Your task to perform on an android device: open app "Firefox Browser" Image 0: 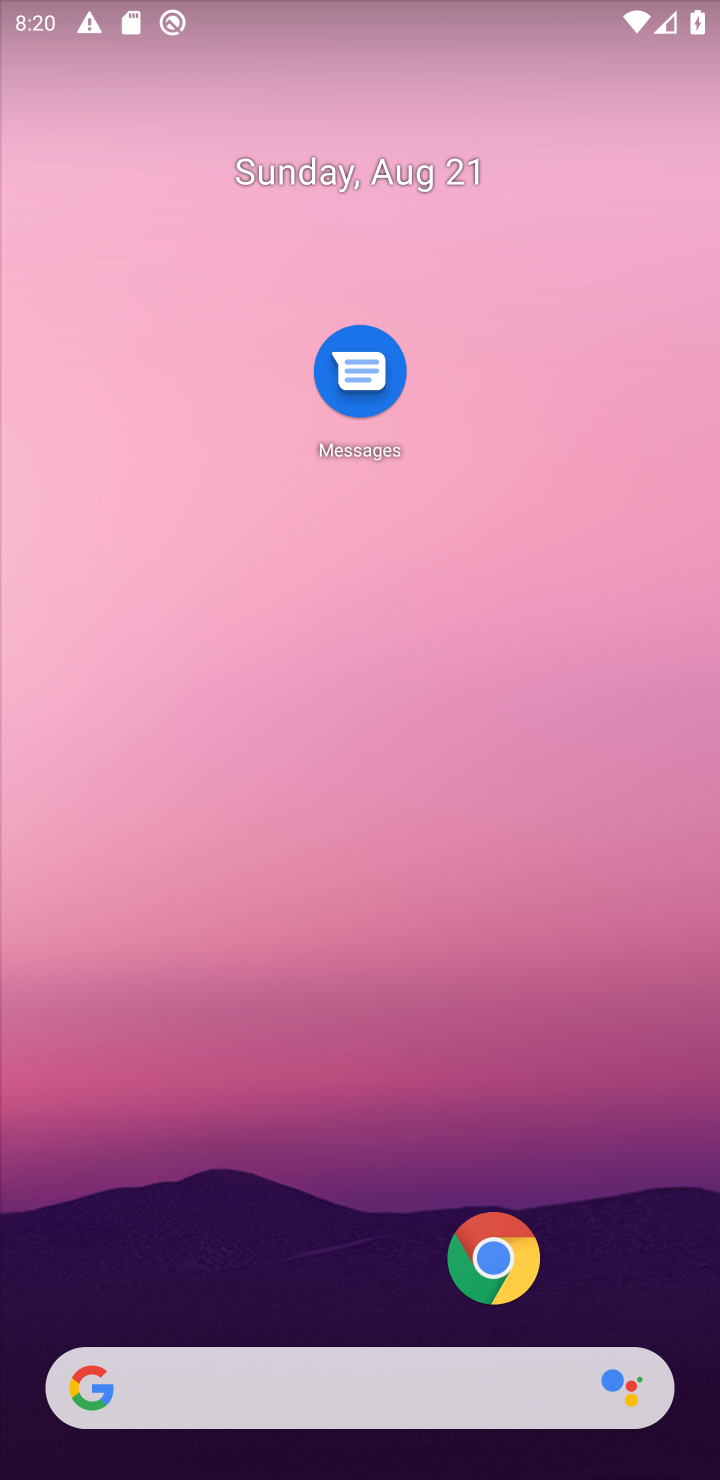
Step 0: drag from (362, 594) to (298, 0)
Your task to perform on an android device: open app "Firefox Browser" Image 1: 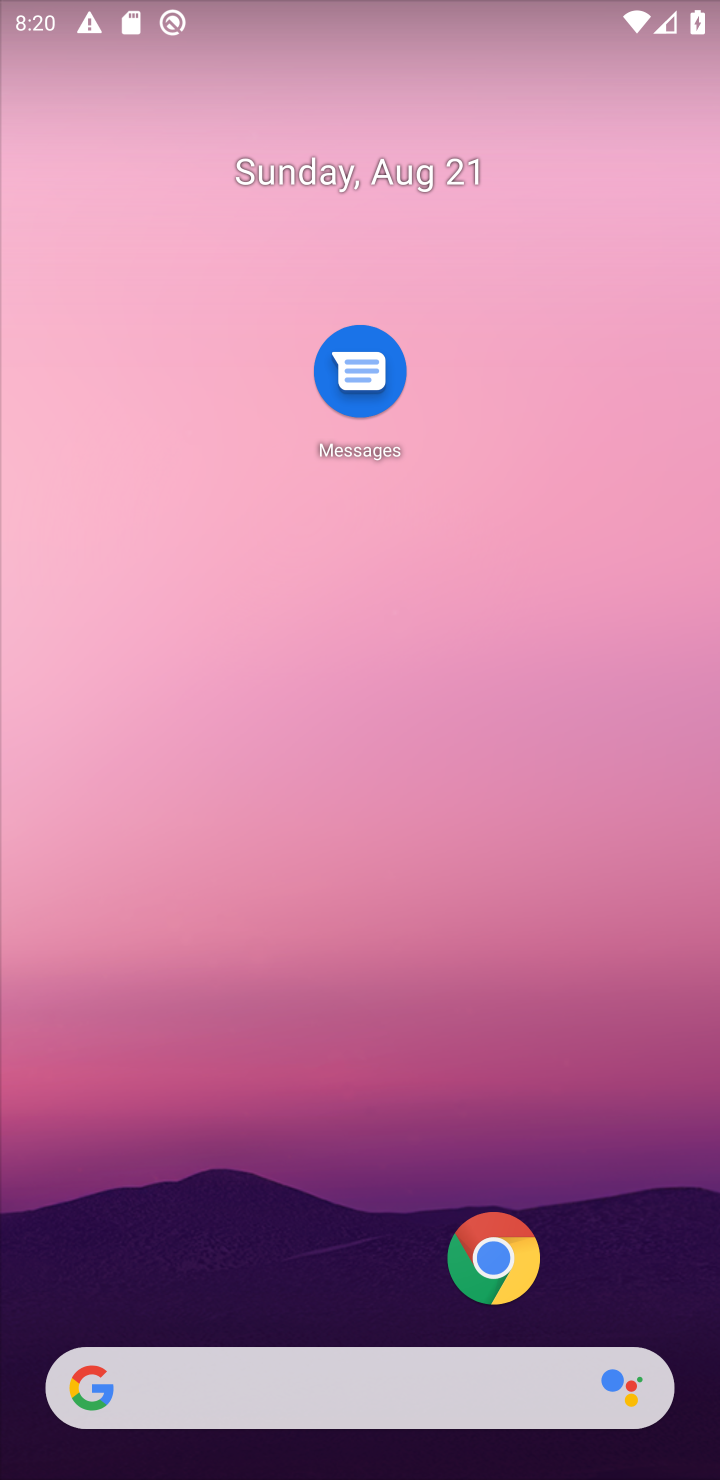
Step 1: drag from (546, 1238) to (399, 53)
Your task to perform on an android device: open app "Firefox Browser" Image 2: 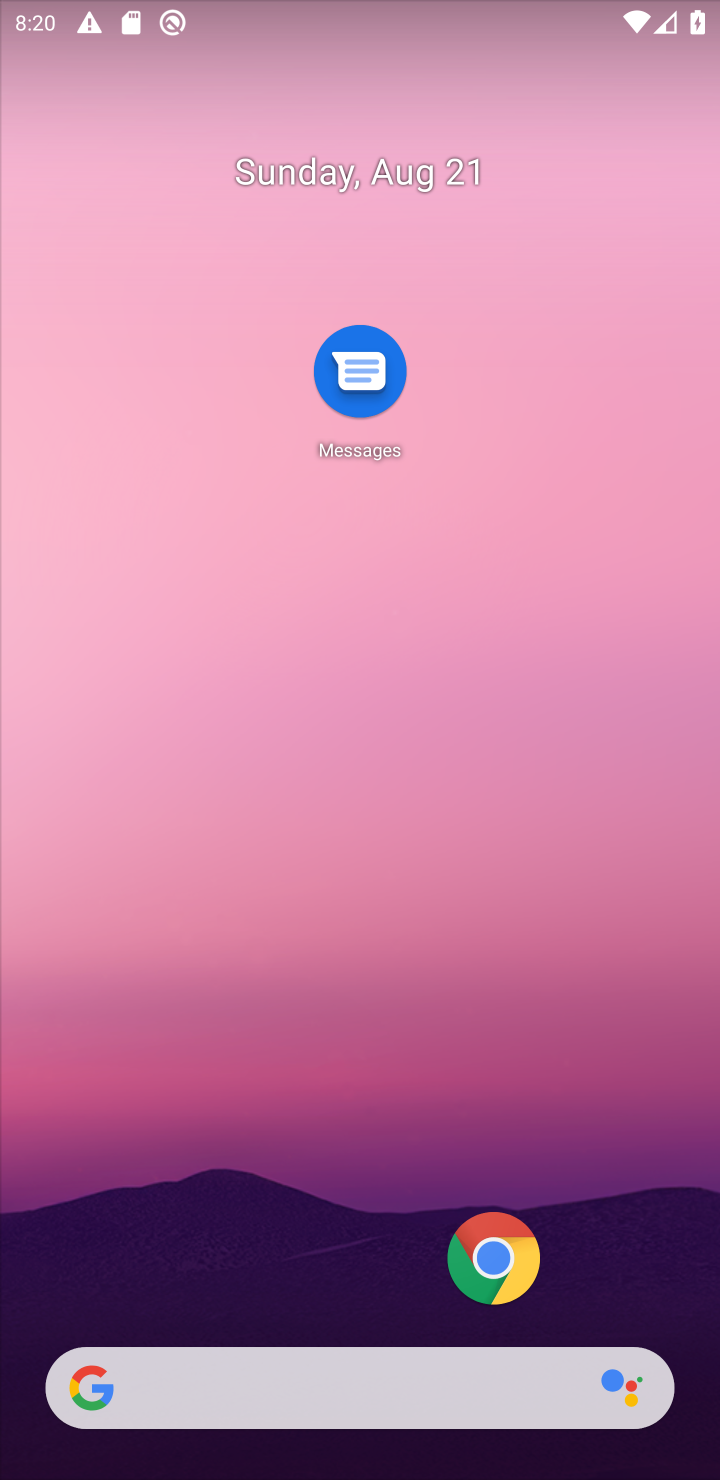
Step 2: drag from (360, 1105) to (303, 2)
Your task to perform on an android device: open app "Firefox Browser" Image 3: 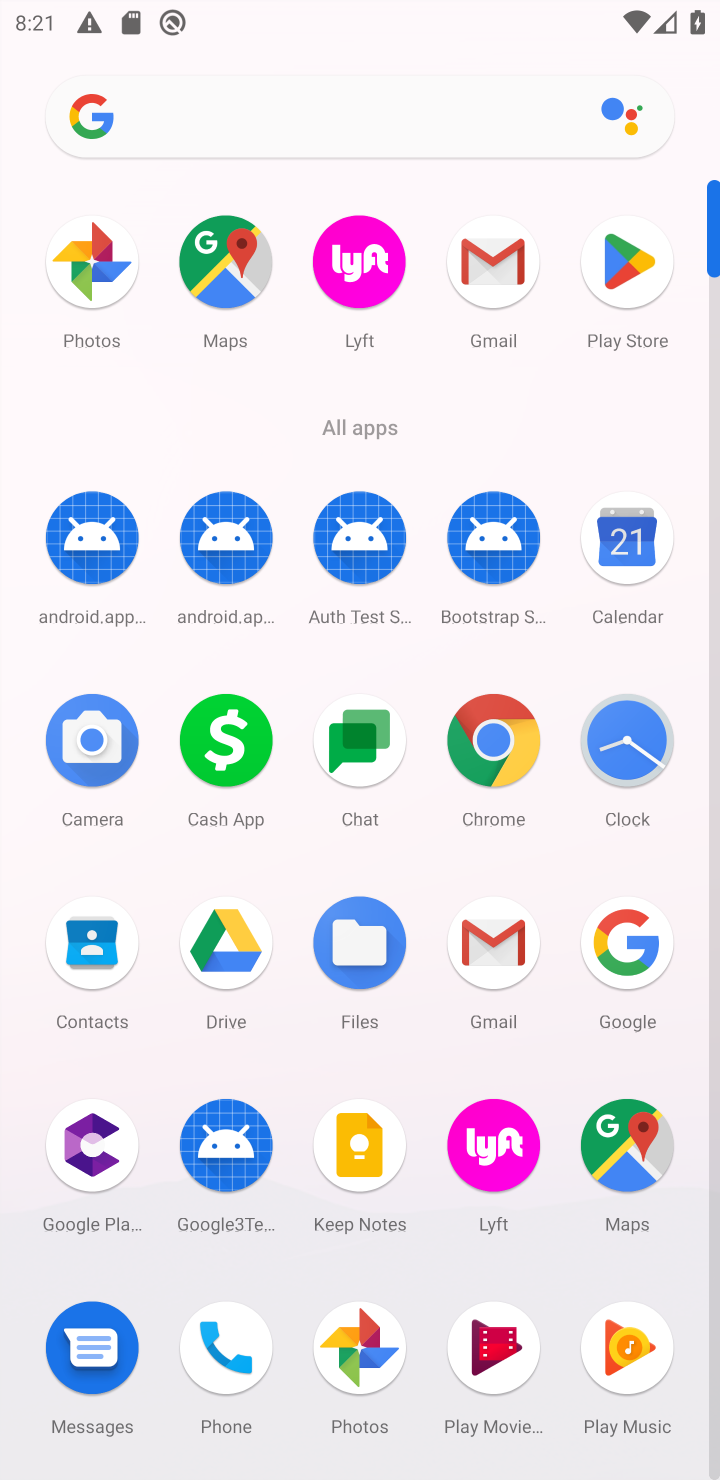
Step 3: click (620, 302)
Your task to perform on an android device: open app "Firefox Browser" Image 4: 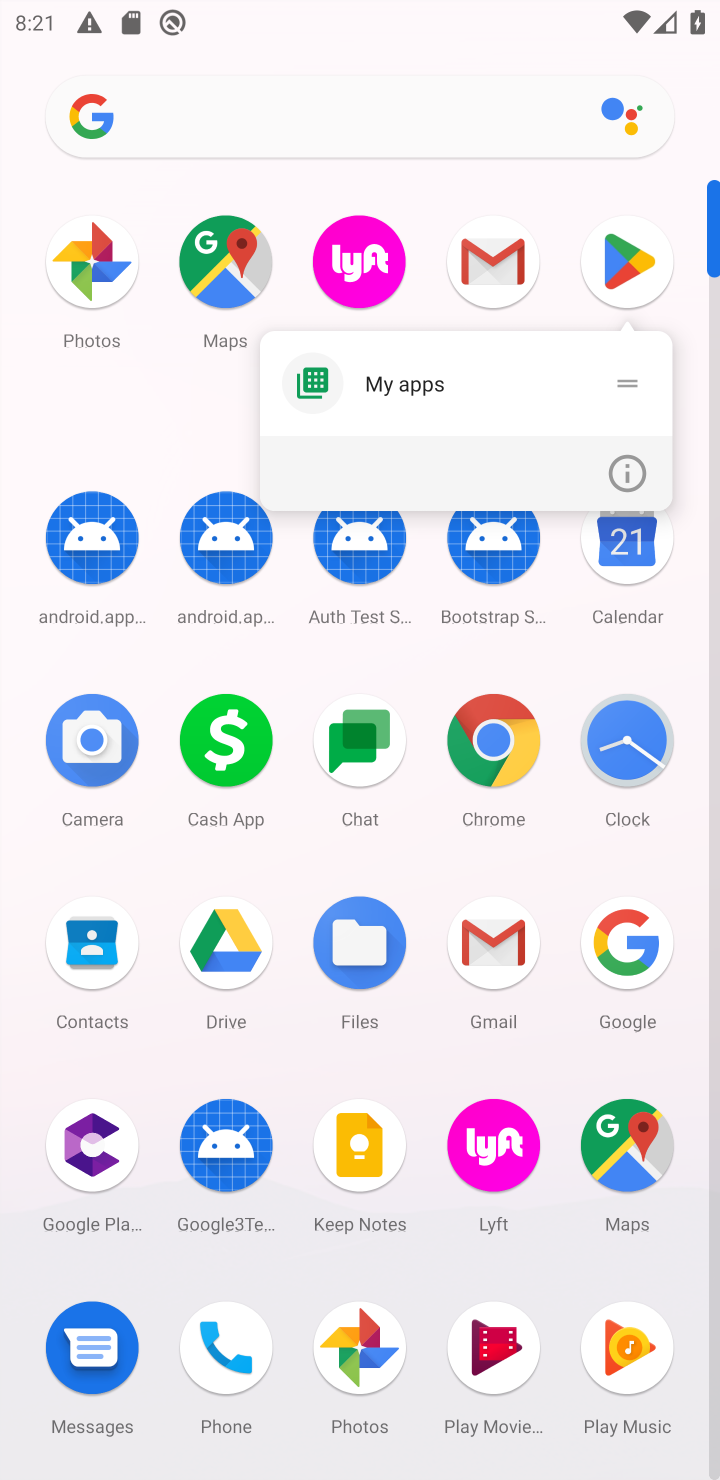
Step 4: click (606, 263)
Your task to perform on an android device: open app "Firefox Browser" Image 5: 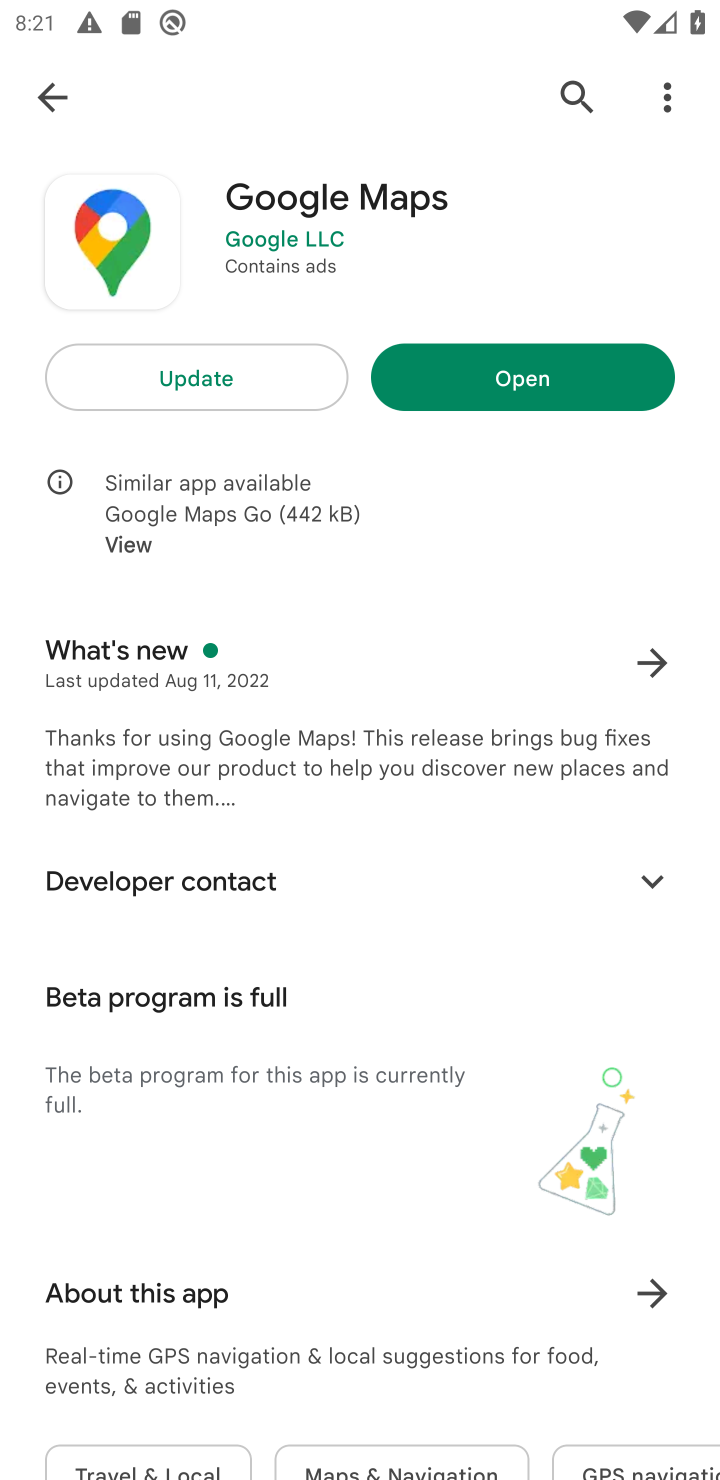
Step 5: press back button
Your task to perform on an android device: open app "Firefox Browser" Image 6: 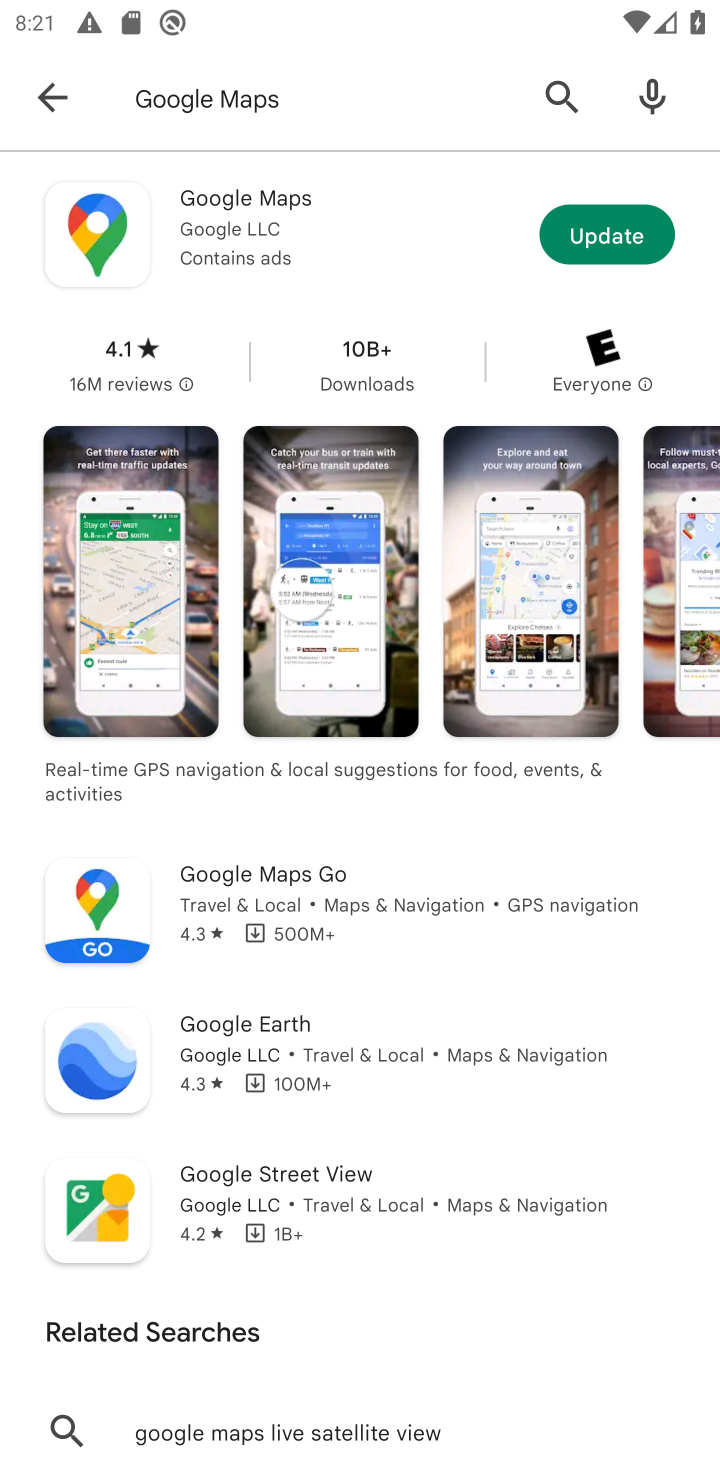
Step 6: press back button
Your task to perform on an android device: open app "Firefox Browser" Image 7: 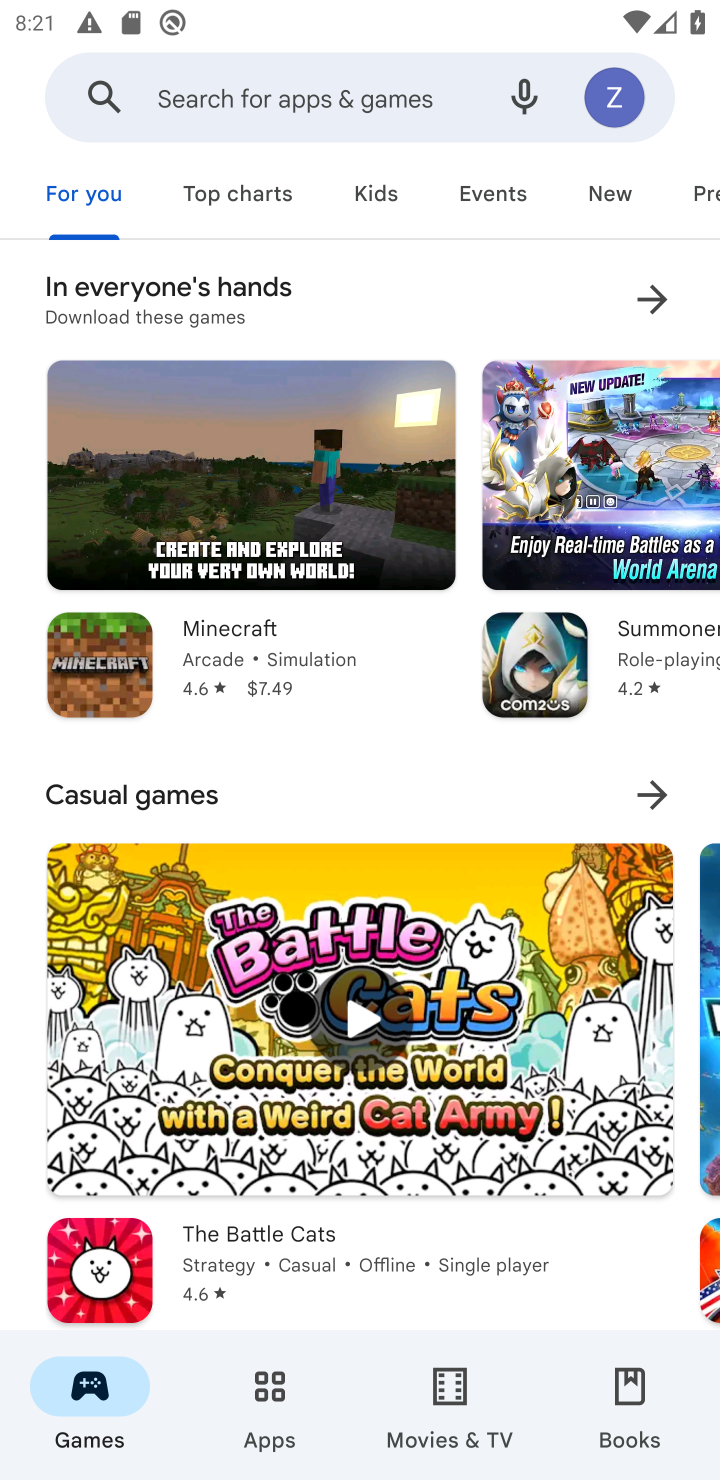
Step 7: press back button
Your task to perform on an android device: open app "Firefox Browser" Image 8: 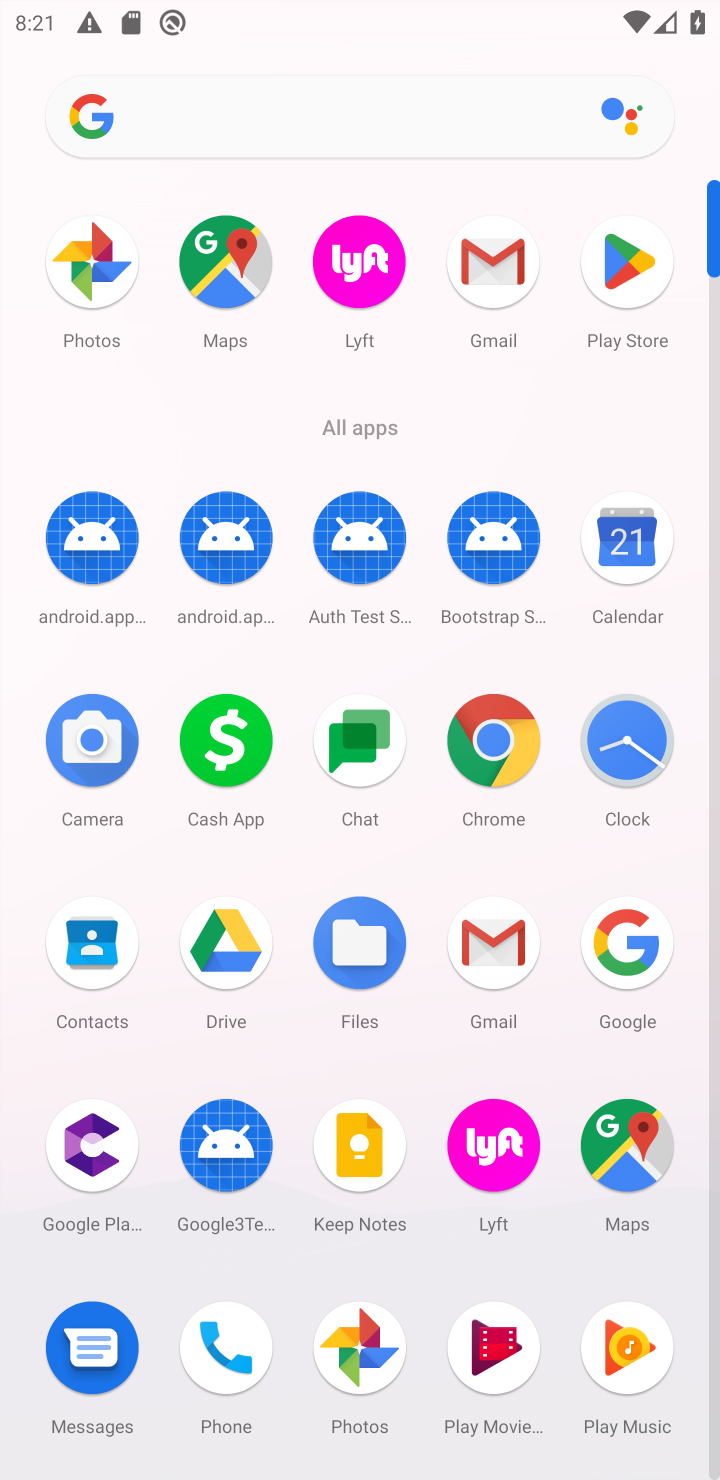
Step 8: click (609, 286)
Your task to perform on an android device: open app "Firefox Browser" Image 9: 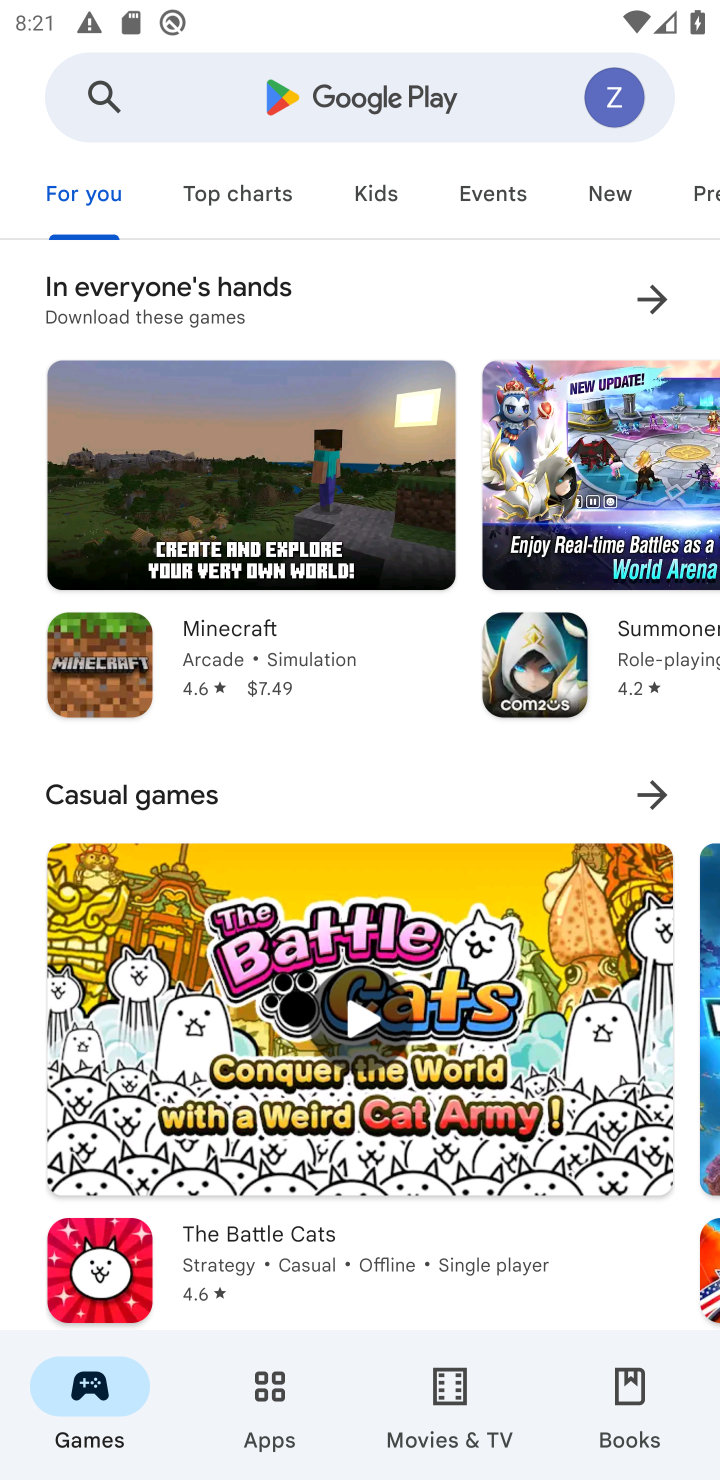
Step 9: click (398, 129)
Your task to perform on an android device: open app "Firefox Browser" Image 10: 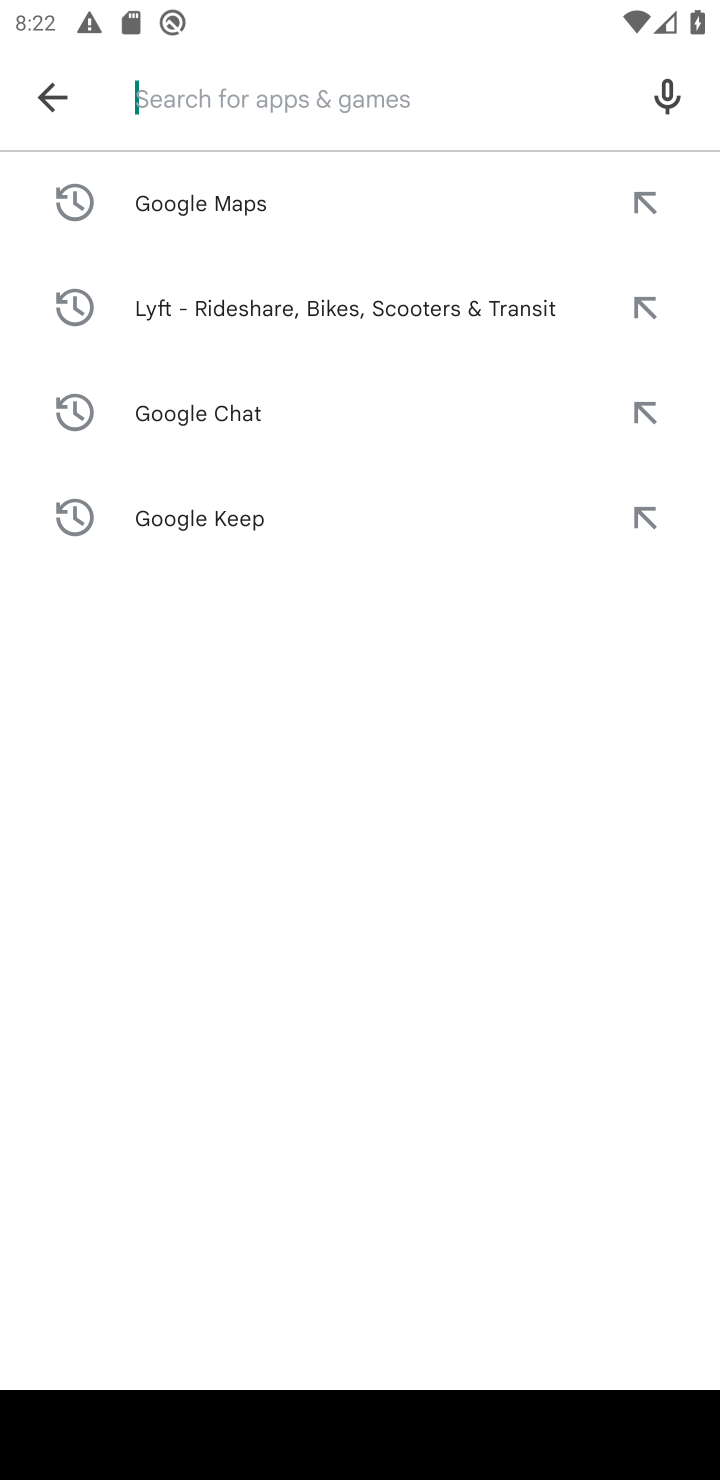
Step 10: type "Firefox Browser"
Your task to perform on an android device: open app "Firefox Browser" Image 11: 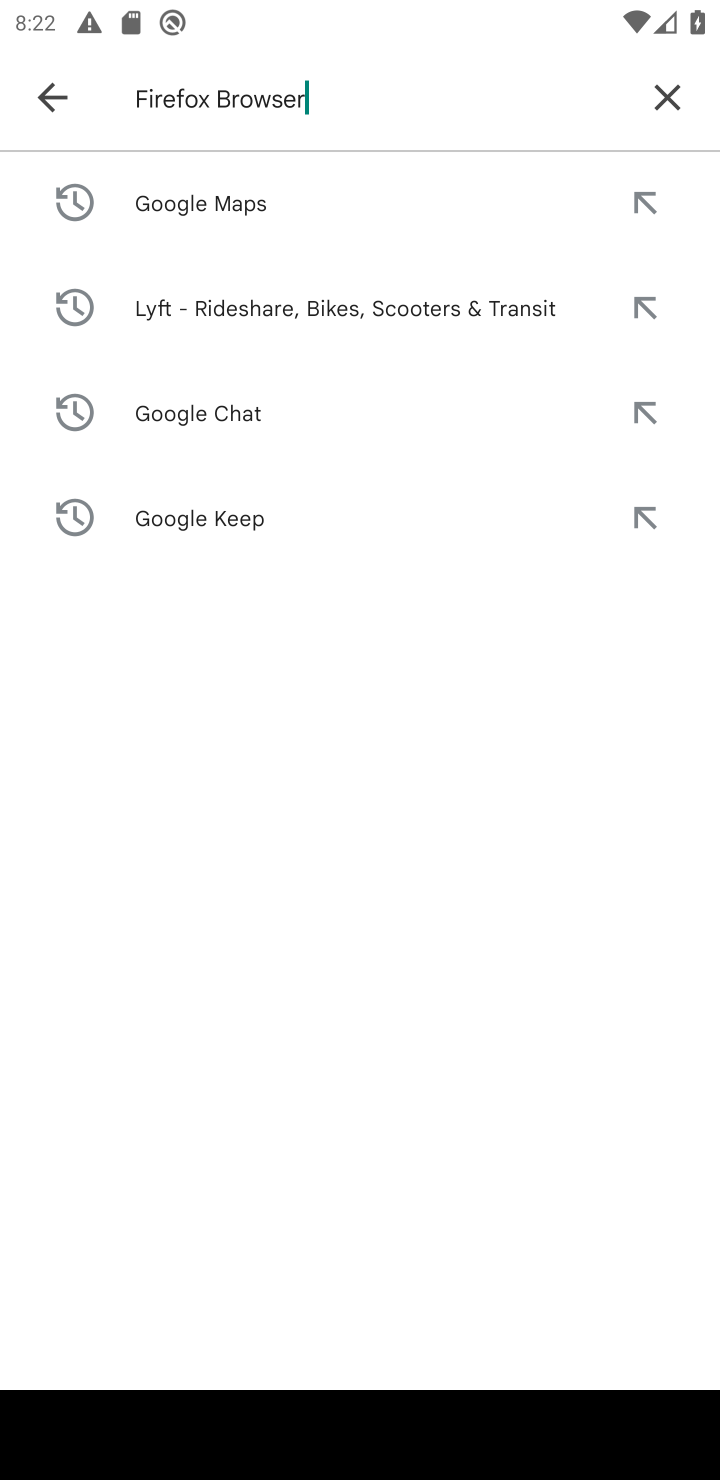
Step 11: press enter
Your task to perform on an android device: open app "Firefox Browser" Image 12: 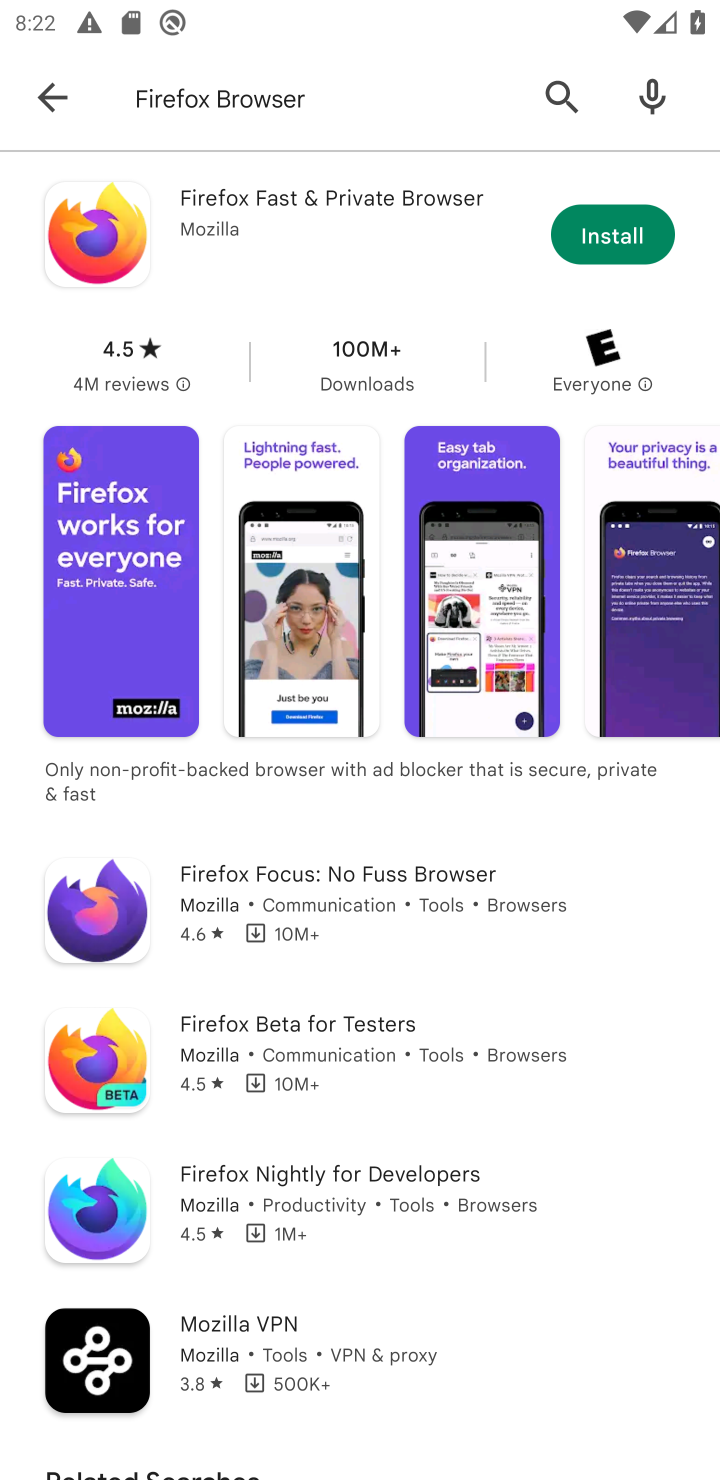
Step 12: task complete